Your task to perform on an android device: see sites visited before in the chrome app Image 0: 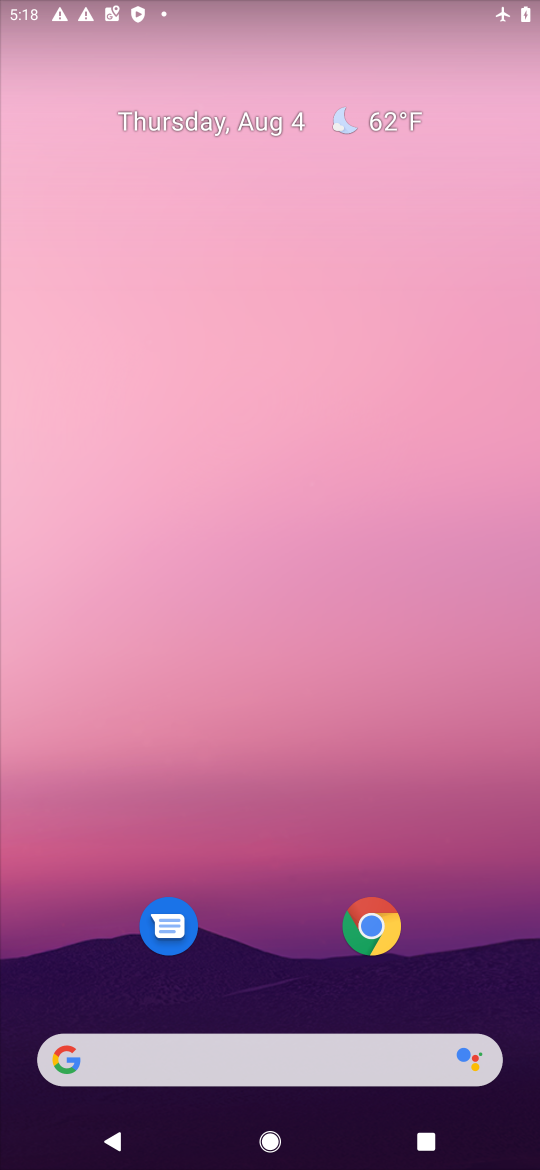
Step 0: drag from (297, 846) to (431, 20)
Your task to perform on an android device: see sites visited before in the chrome app Image 1: 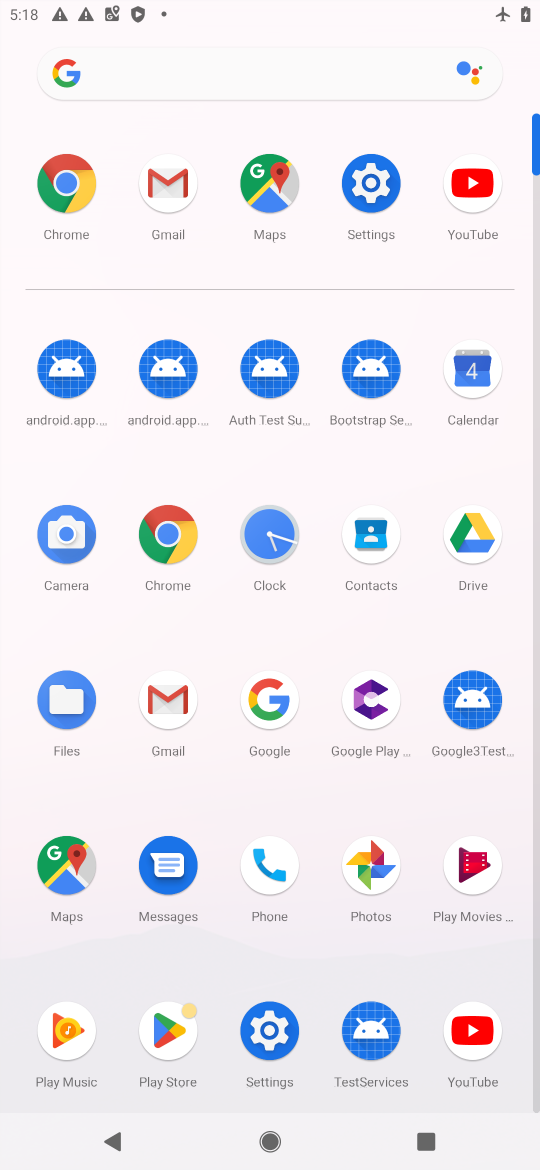
Step 1: click (75, 184)
Your task to perform on an android device: see sites visited before in the chrome app Image 2: 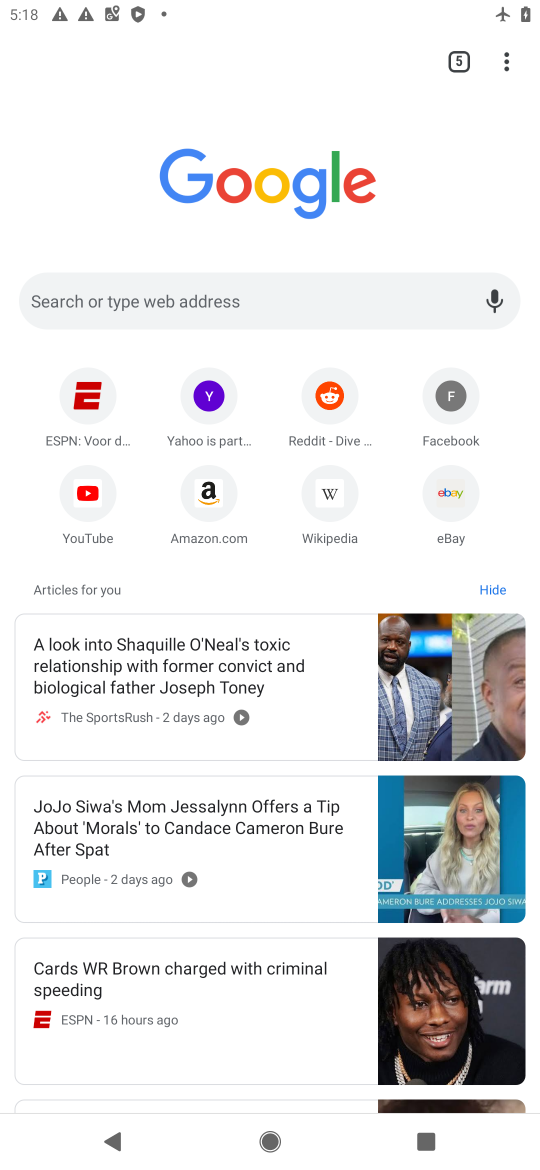
Step 2: task complete